Your task to perform on an android device: Go to calendar. Show me events next week Image 0: 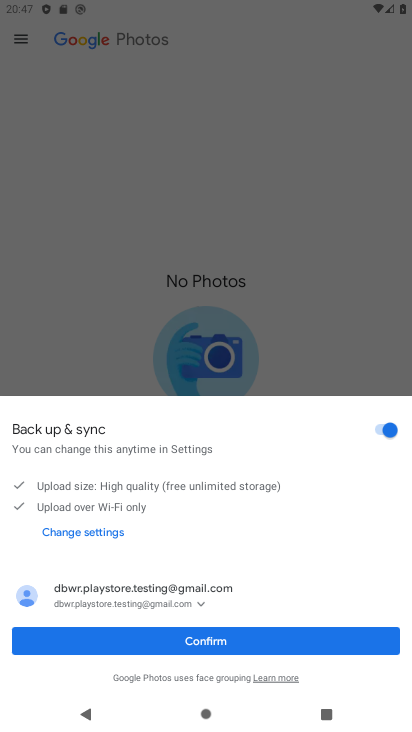
Step 0: press back button
Your task to perform on an android device: Go to calendar. Show me events next week Image 1: 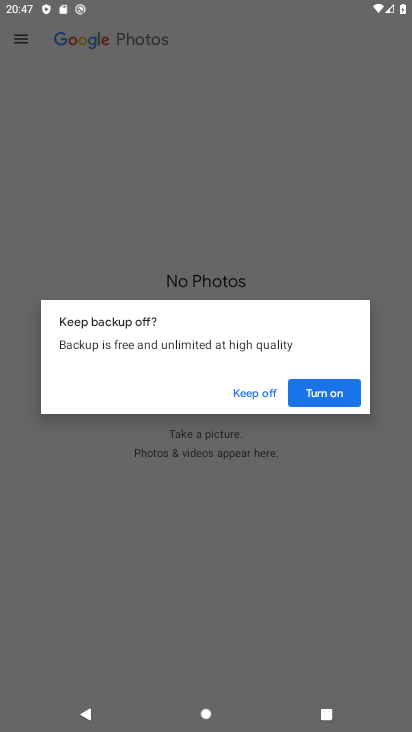
Step 1: press home button
Your task to perform on an android device: Go to calendar. Show me events next week Image 2: 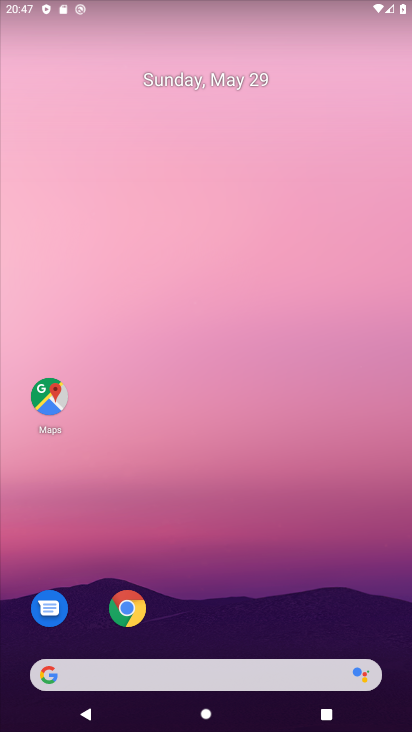
Step 2: drag from (378, 632) to (364, 229)
Your task to perform on an android device: Go to calendar. Show me events next week Image 3: 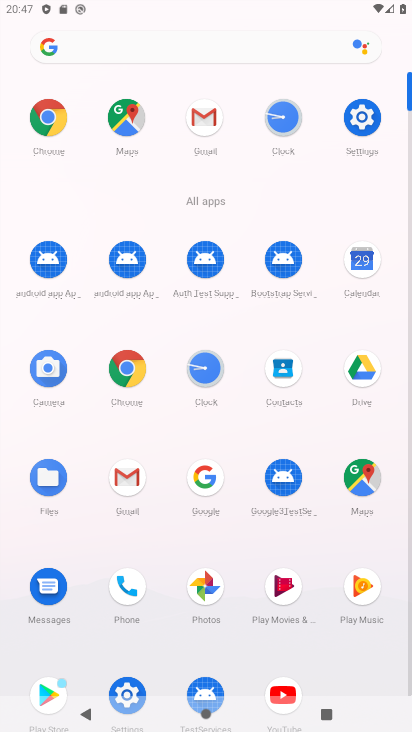
Step 3: click (360, 272)
Your task to perform on an android device: Go to calendar. Show me events next week Image 4: 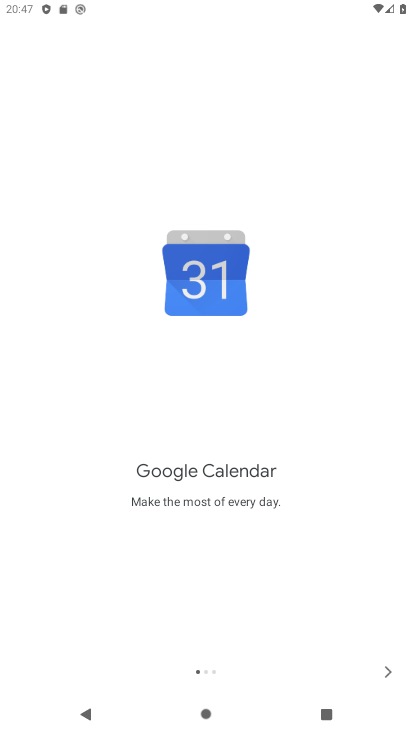
Step 4: click (377, 667)
Your task to perform on an android device: Go to calendar. Show me events next week Image 5: 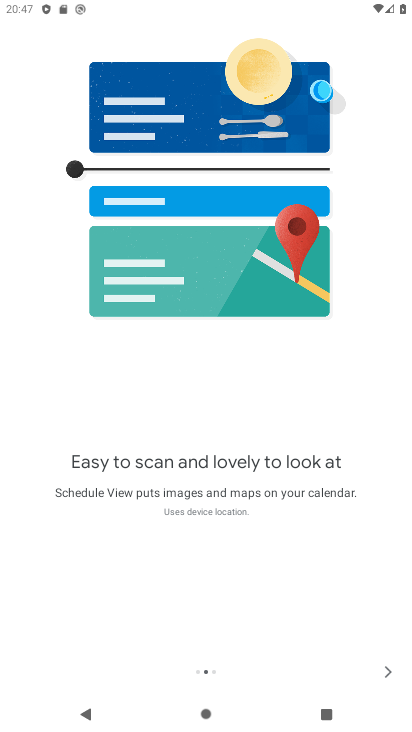
Step 5: click (377, 667)
Your task to perform on an android device: Go to calendar. Show me events next week Image 6: 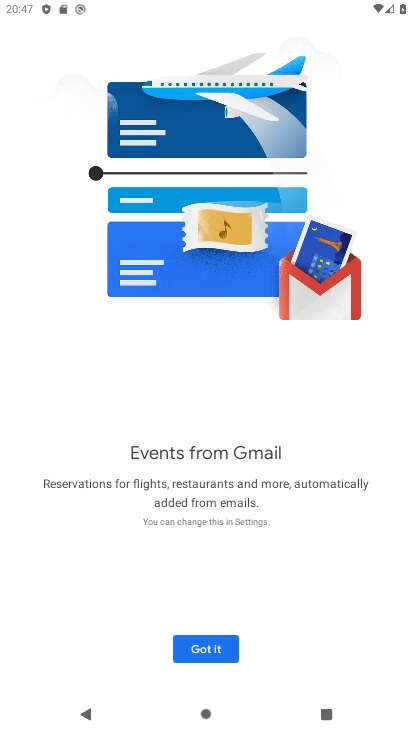
Step 6: click (377, 667)
Your task to perform on an android device: Go to calendar. Show me events next week Image 7: 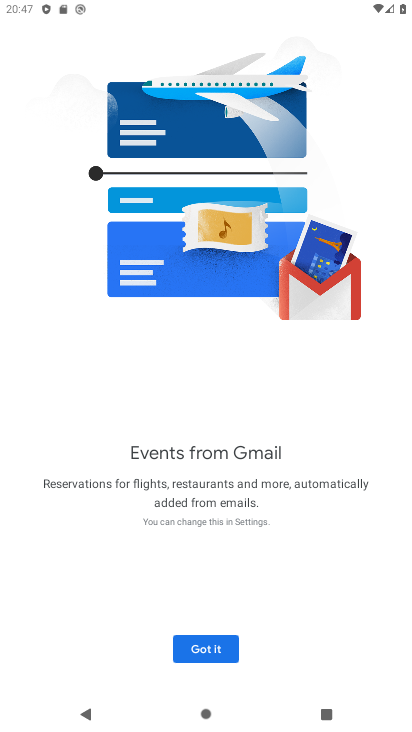
Step 7: click (222, 648)
Your task to perform on an android device: Go to calendar. Show me events next week Image 8: 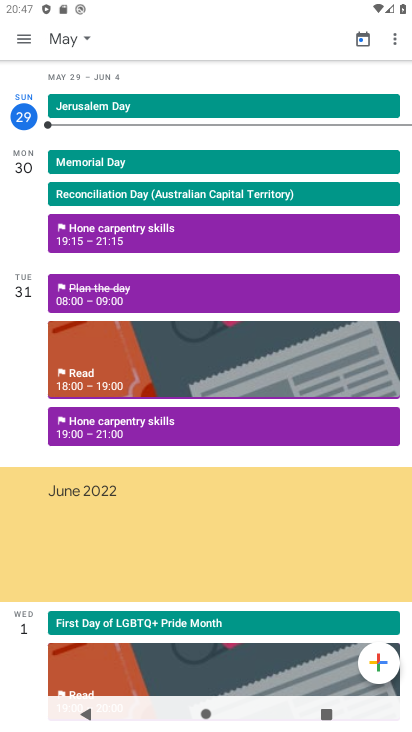
Step 8: click (88, 45)
Your task to perform on an android device: Go to calendar. Show me events next week Image 9: 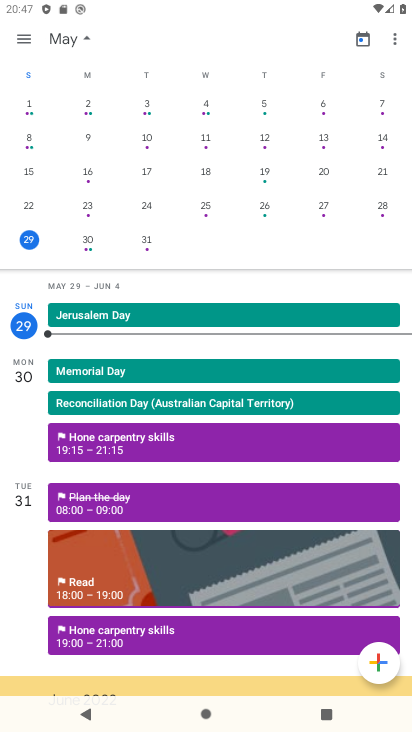
Step 9: drag from (399, 83) to (43, 82)
Your task to perform on an android device: Go to calendar. Show me events next week Image 10: 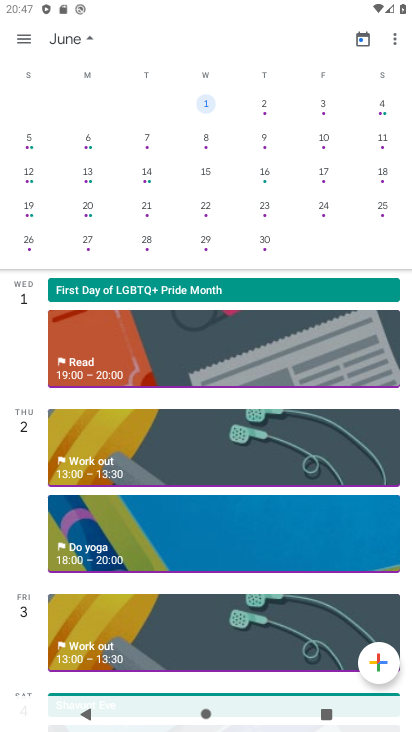
Step 10: click (224, 349)
Your task to perform on an android device: Go to calendar. Show me events next week Image 11: 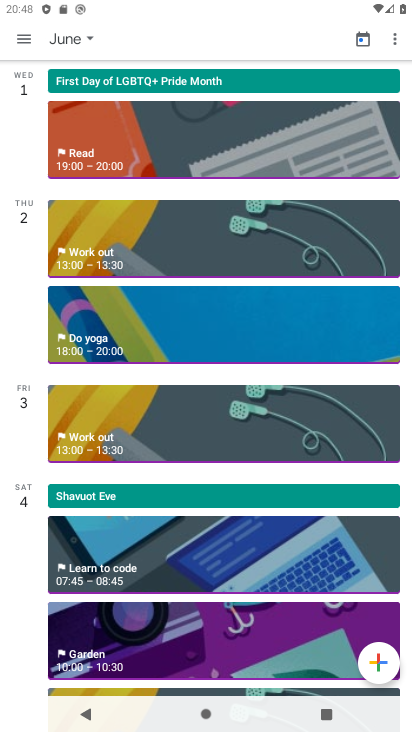
Step 11: click (163, 133)
Your task to perform on an android device: Go to calendar. Show me events next week Image 12: 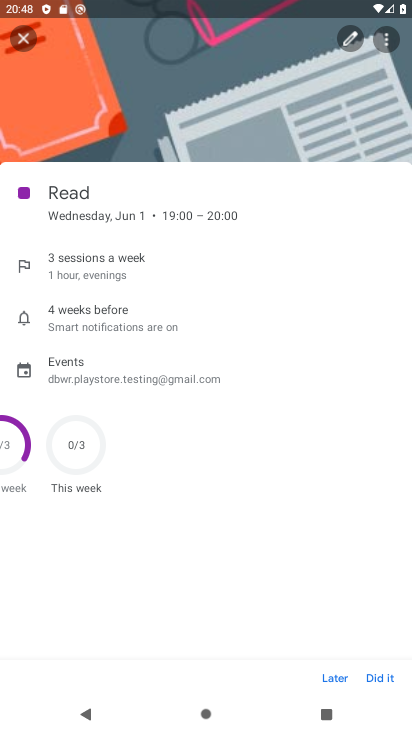
Step 12: task complete